Your task to perform on an android device: move an email to a new category in the gmail app Image 0: 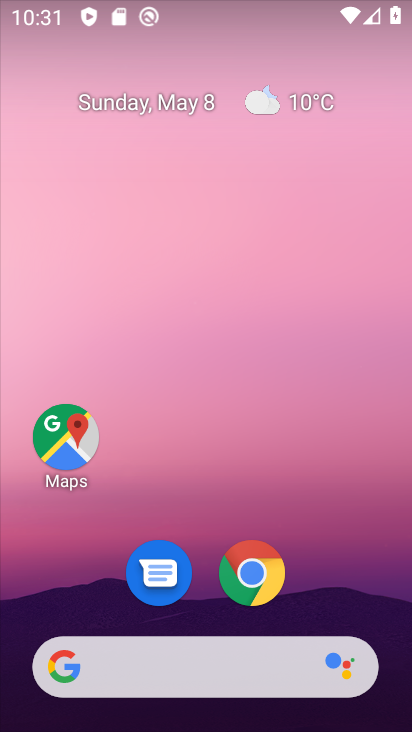
Step 0: drag from (348, 610) to (341, 24)
Your task to perform on an android device: move an email to a new category in the gmail app Image 1: 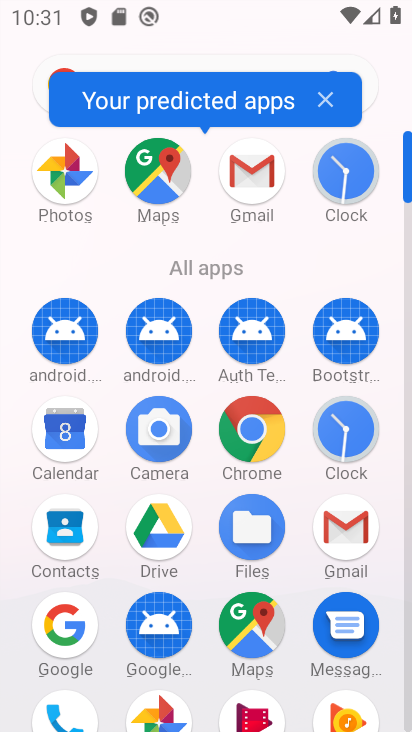
Step 1: click (340, 535)
Your task to perform on an android device: move an email to a new category in the gmail app Image 2: 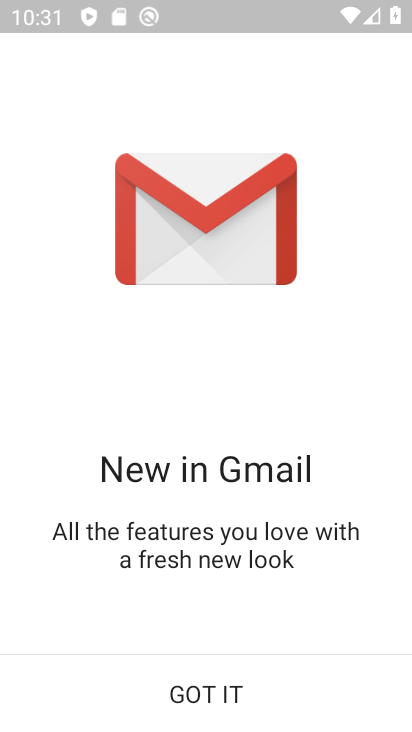
Step 2: click (219, 713)
Your task to perform on an android device: move an email to a new category in the gmail app Image 3: 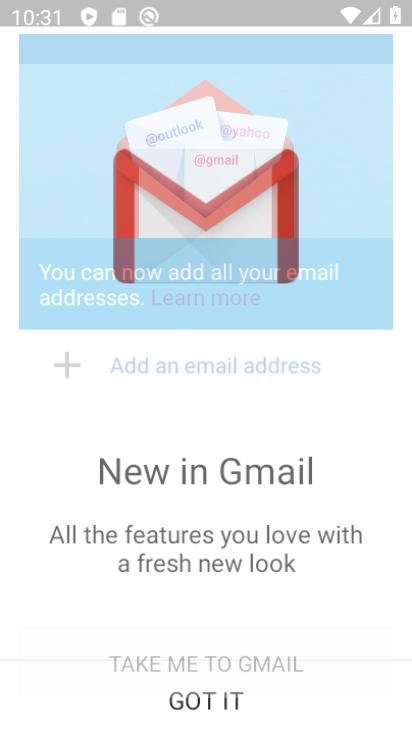
Step 3: click (219, 713)
Your task to perform on an android device: move an email to a new category in the gmail app Image 4: 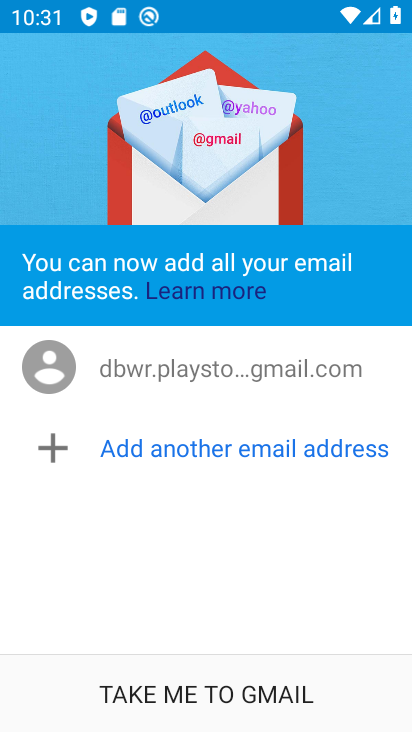
Step 4: click (219, 713)
Your task to perform on an android device: move an email to a new category in the gmail app Image 5: 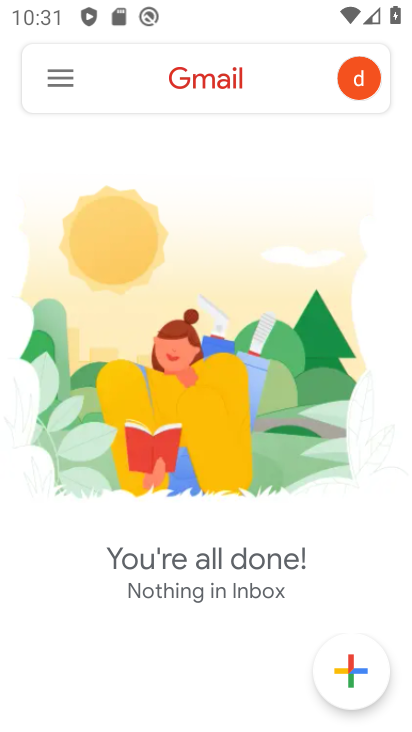
Step 5: click (70, 85)
Your task to perform on an android device: move an email to a new category in the gmail app Image 6: 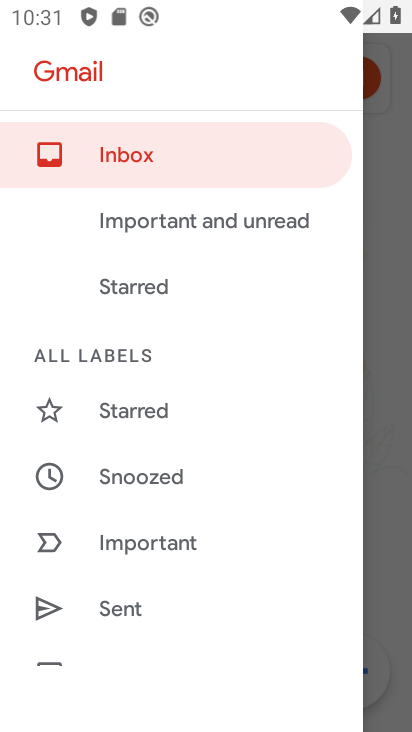
Step 6: task complete